Your task to perform on an android device: Open calendar and show me the first week of next month Image 0: 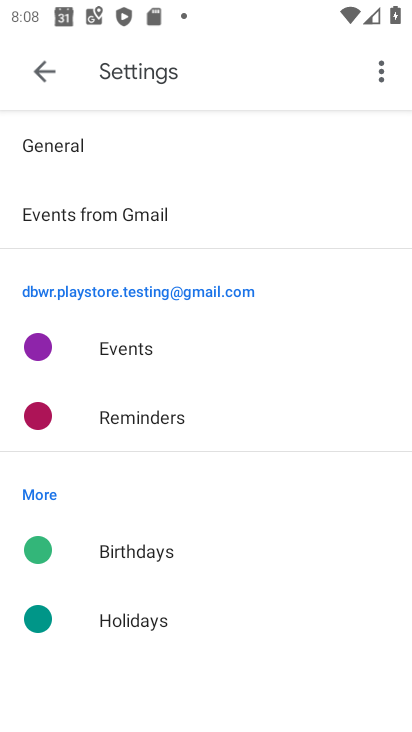
Step 0: press home button
Your task to perform on an android device: Open calendar and show me the first week of next month Image 1: 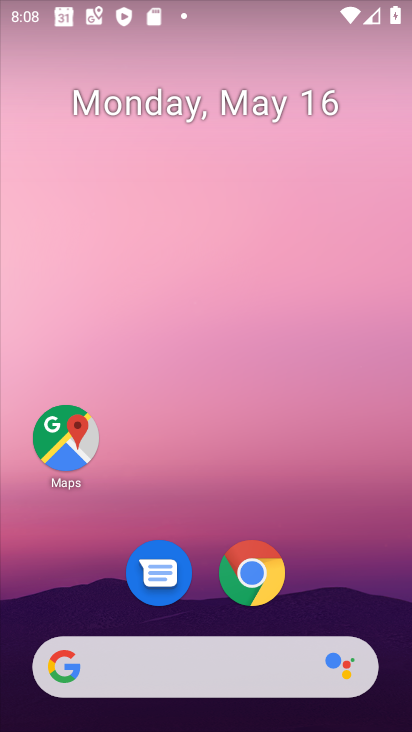
Step 1: drag from (351, 595) to (229, 4)
Your task to perform on an android device: Open calendar and show me the first week of next month Image 2: 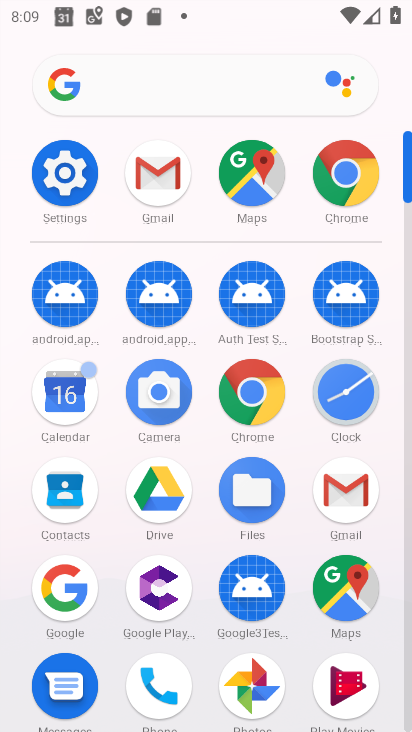
Step 2: click (47, 410)
Your task to perform on an android device: Open calendar and show me the first week of next month Image 3: 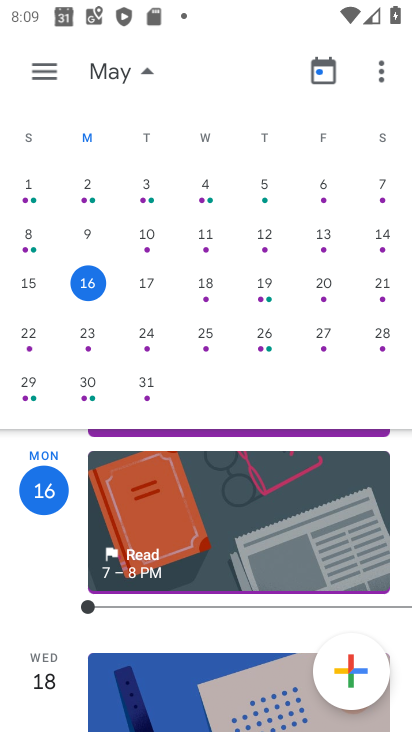
Step 3: drag from (325, 318) to (2, 245)
Your task to perform on an android device: Open calendar and show me the first week of next month Image 4: 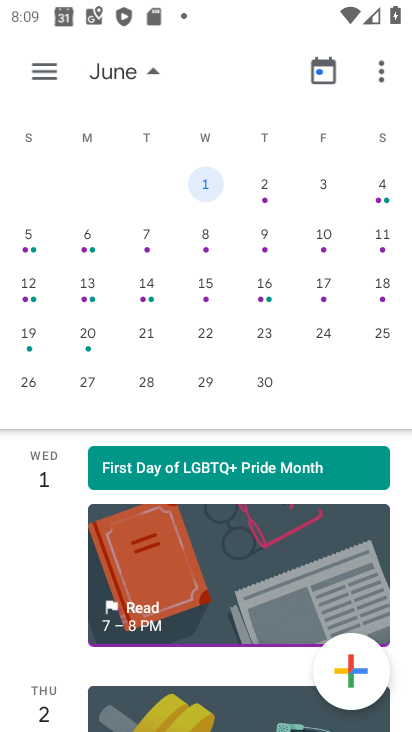
Step 4: click (374, 194)
Your task to perform on an android device: Open calendar and show me the first week of next month Image 5: 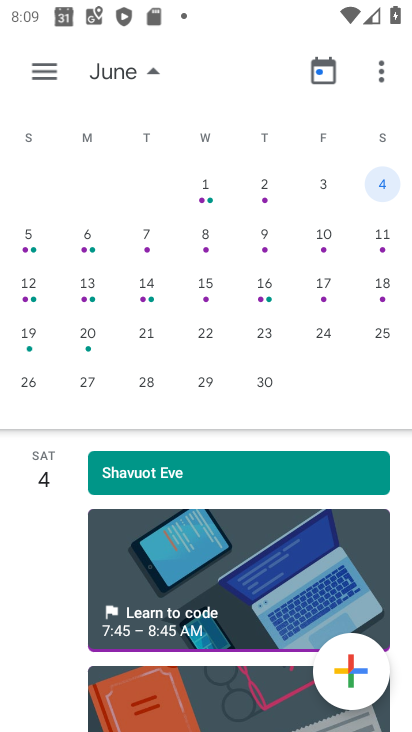
Step 5: task complete